Your task to perform on an android device: delete browsing data in the chrome app Image 0: 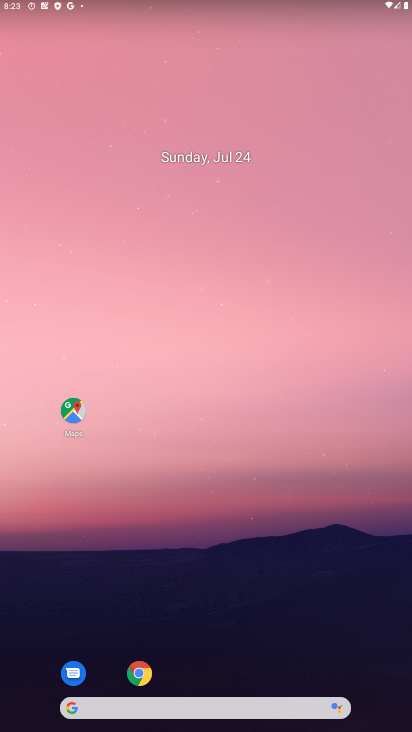
Step 0: click (156, 669)
Your task to perform on an android device: delete browsing data in the chrome app Image 1: 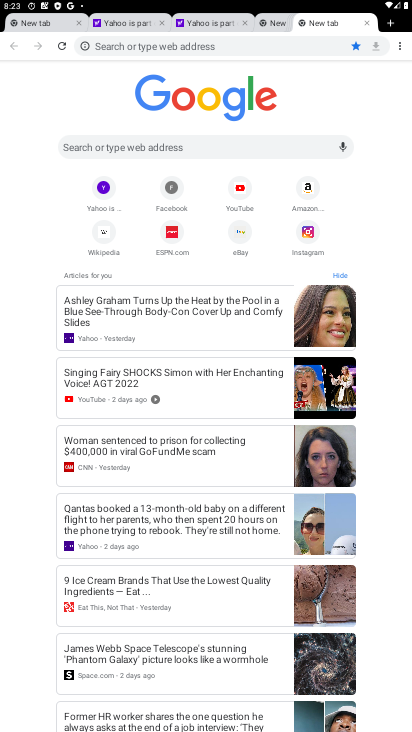
Step 1: click (401, 45)
Your task to perform on an android device: delete browsing data in the chrome app Image 2: 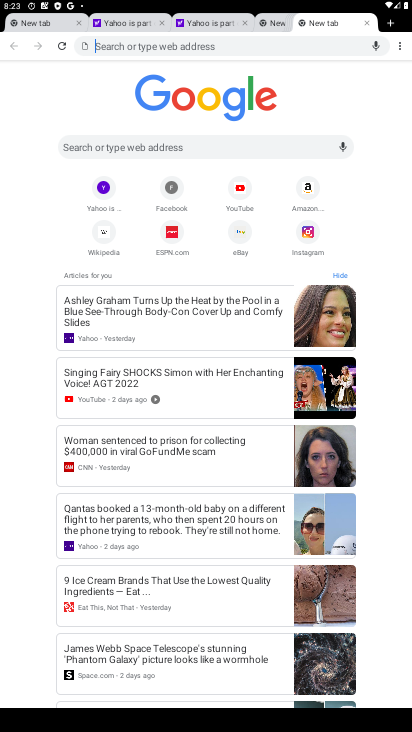
Step 2: click (401, 45)
Your task to perform on an android device: delete browsing data in the chrome app Image 3: 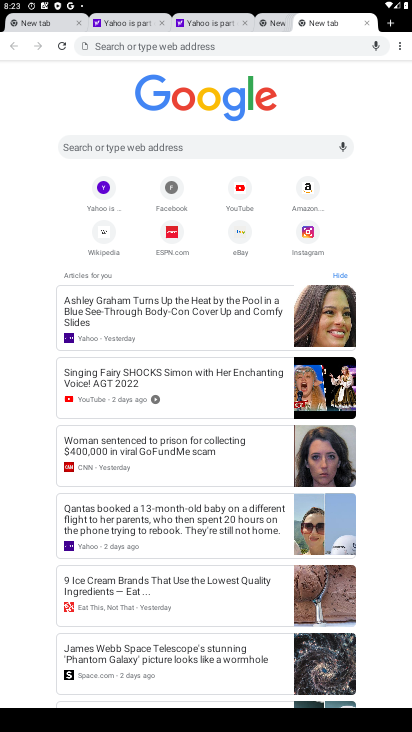
Step 3: click (399, 48)
Your task to perform on an android device: delete browsing data in the chrome app Image 4: 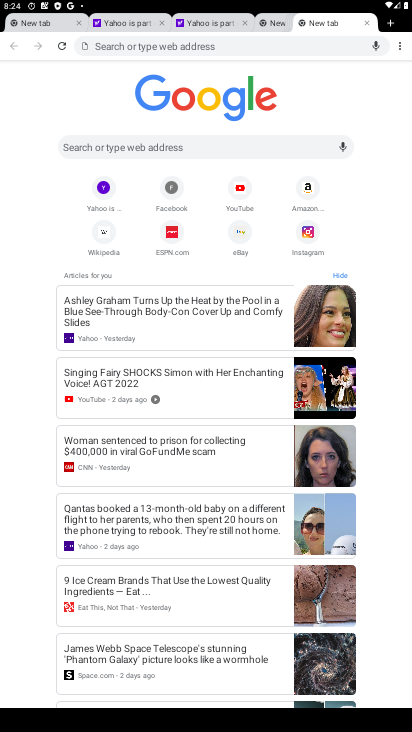
Step 4: task complete